Your task to perform on an android device: Open Google Maps and go to "Timeline" Image 0: 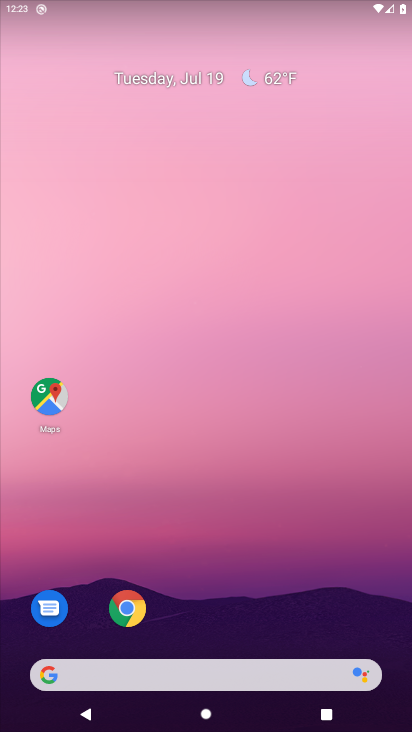
Step 0: press home button
Your task to perform on an android device: Open Google Maps and go to "Timeline" Image 1: 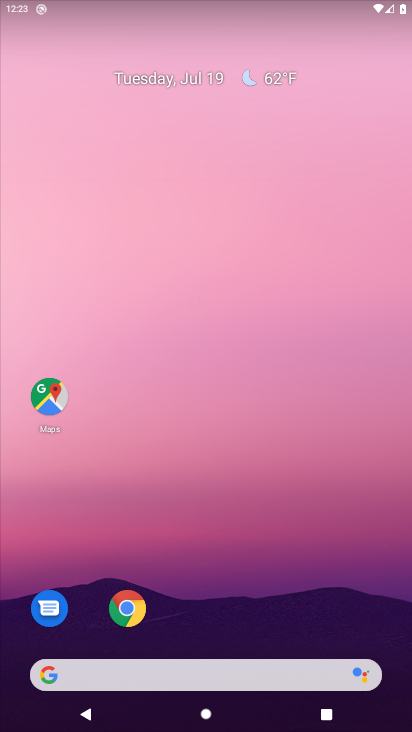
Step 1: drag from (225, 630) to (211, 16)
Your task to perform on an android device: Open Google Maps and go to "Timeline" Image 2: 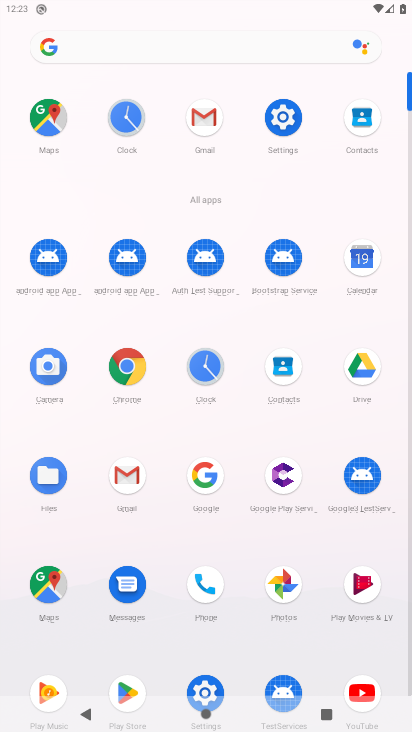
Step 2: click (46, 580)
Your task to perform on an android device: Open Google Maps and go to "Timeline" Image 3: 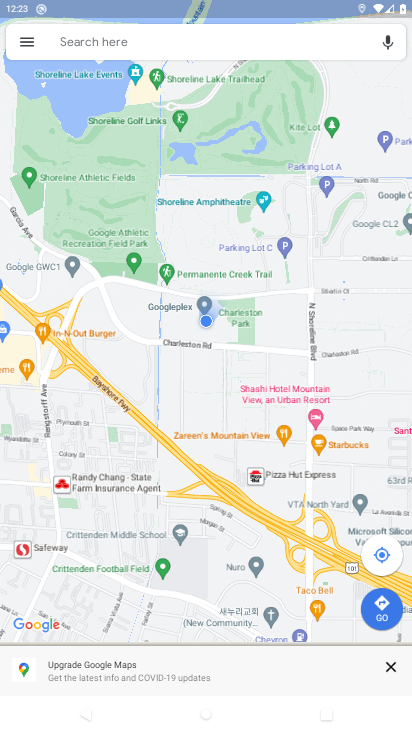
Step 3: click (389, 670)
Your task to perform on an android device: Open Google Maps and go to "Timeline" Image 4: 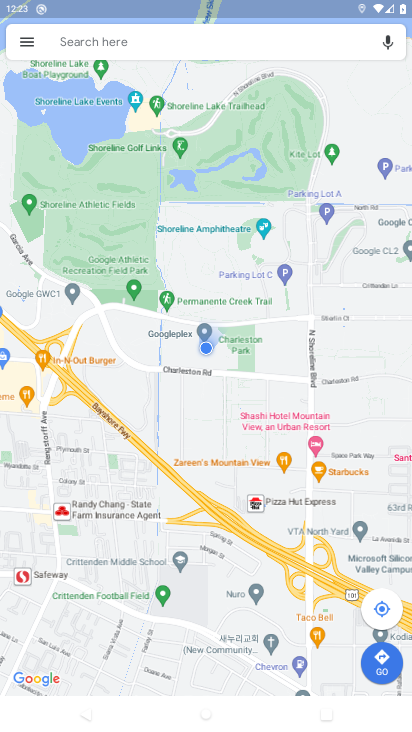
Step 4: click (25, 40)
Your task to perform on an android device: Open Google Maps and go to "Timeline" Image 5: 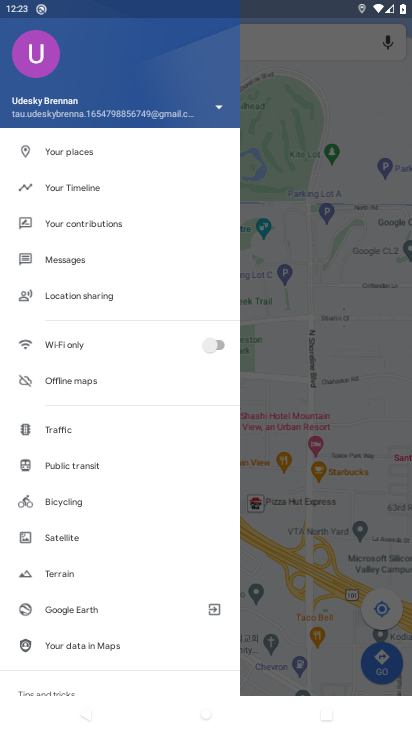
Step 5: click (98, 185)
Your task to perform on an android device: Open Google Maps and go to "Timeline" Image 6: 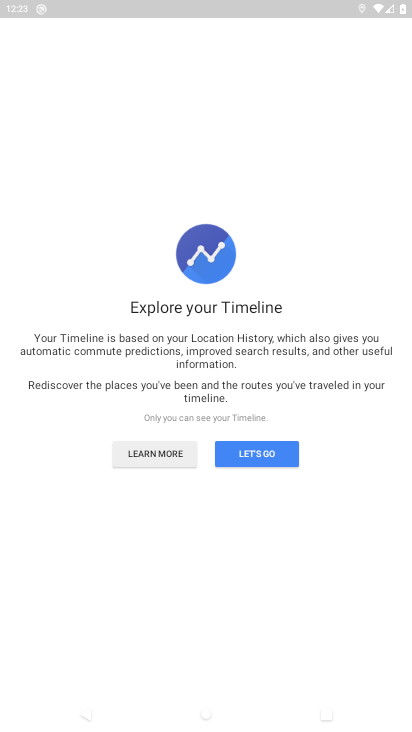
Step 6: click (261, 451)
Your task to perform on an android device: Open Google Maps and go to "Timeline" Image 7: 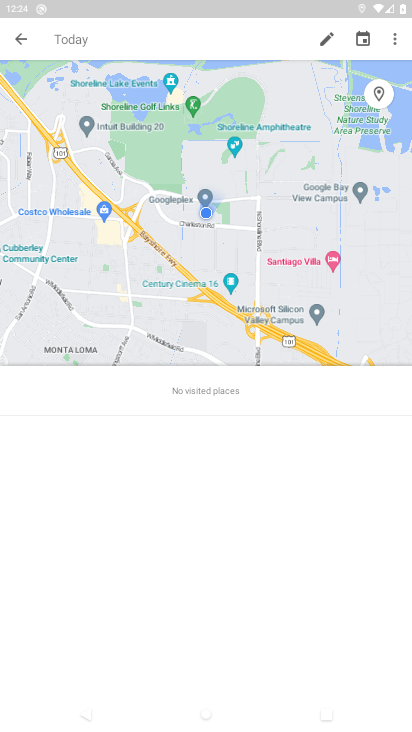
Step 7: task complete